Your task to perform on an android device: Go to display settings Image 0: 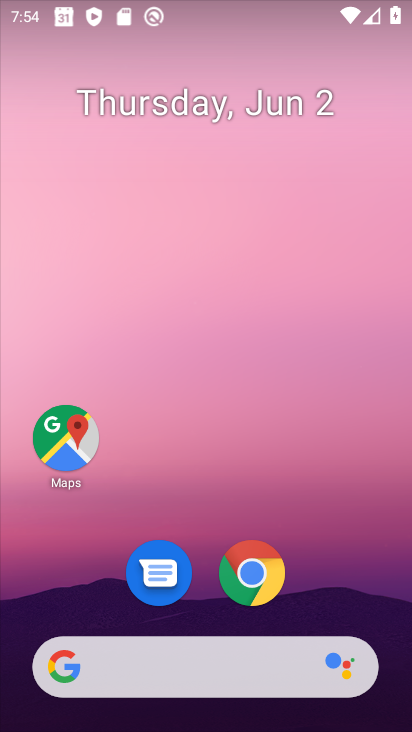
Step 0: drag from (312, 451) to (243, 51)
Your task to perform on an android device: Go to display settings Image 1: 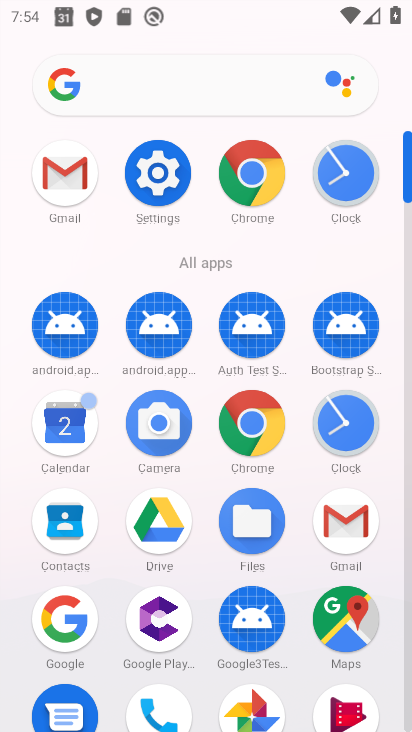
Step 1: click (165, 161)
Your task to perform on an android device: Go to display settings Image 2: 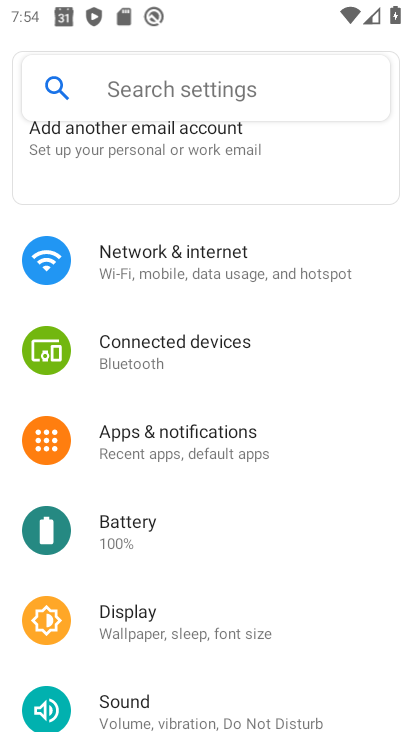
Step 2: drag from (191, 592) to (254, 296)
Your task to perform on an android device: Go to display settings Image 3: 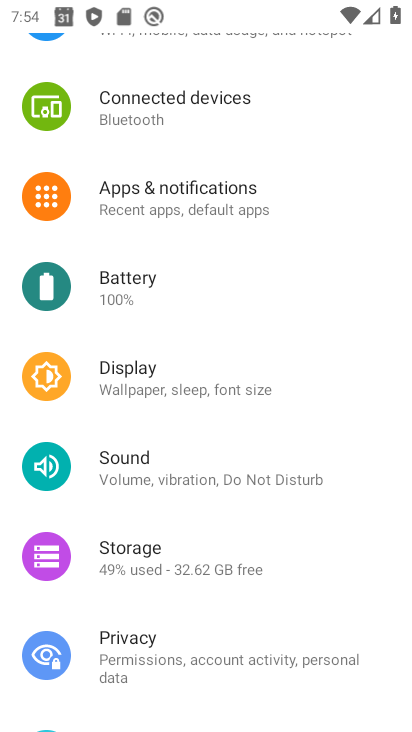
Step 3: click (159, 395)
Your task to perform on an android device: Go to display settings Image 4: 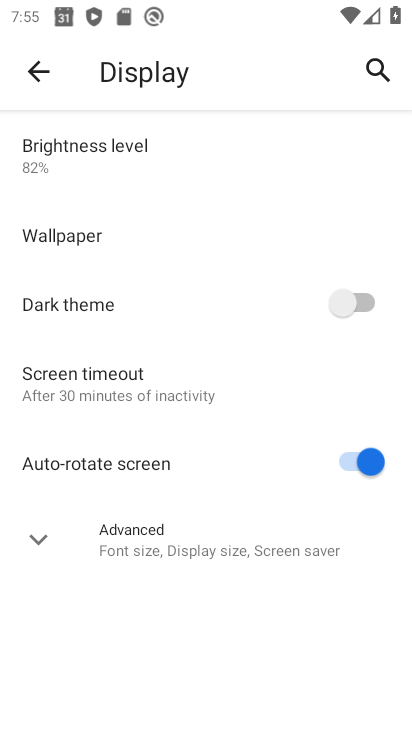
Step 4: task complete